Your task to perform on an android device: Show me productivity apps on the Play Store Image 0: 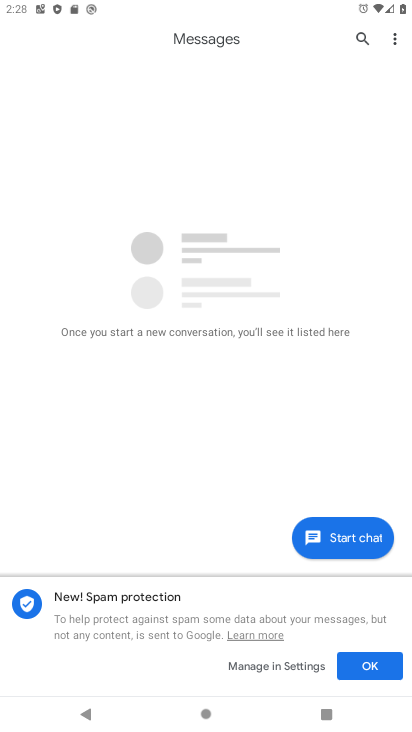
Step 0: press home button
Your task to perform on an android device: Show me productivity apps on the Play Store Image 1: 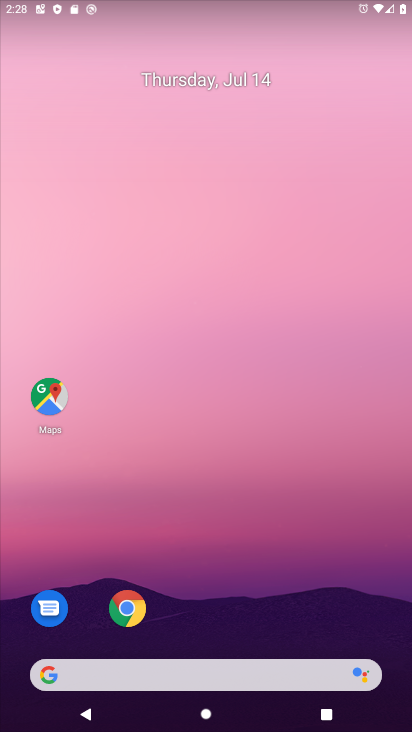
Step 1: drag from (227, 717) to (222, 37)
Your task to perform on an android device: Show me productivity apps on the Play Store Image 2: 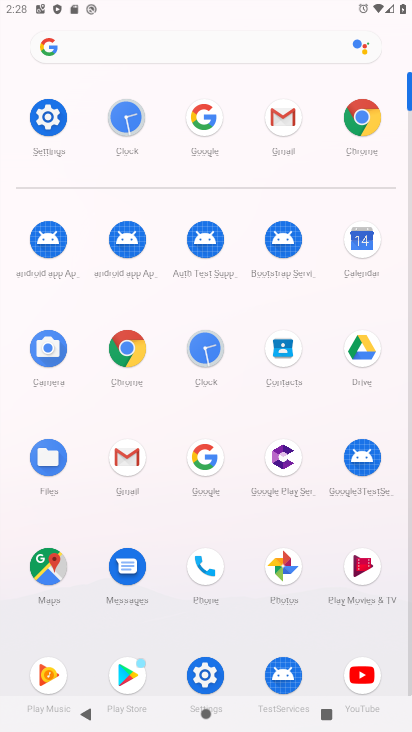
Step 2: click (123, 671)
Your task to perform on an android device: Show me productivity apps on the Play Store Image 3: 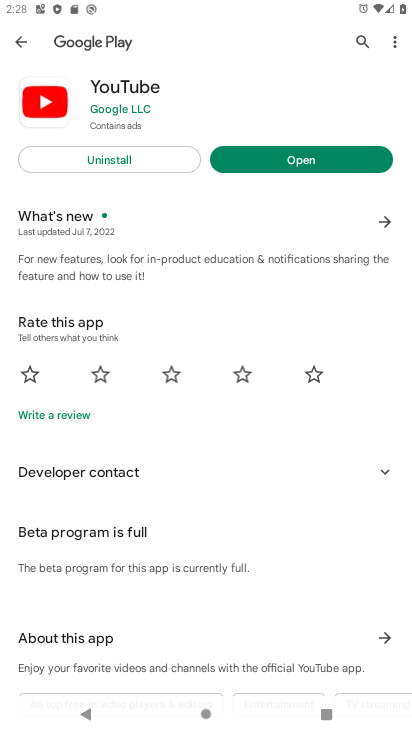
Step 3: click (17, 38)
Your task to perform on an android device: Show me productivity apps on the Play Store Image 4: 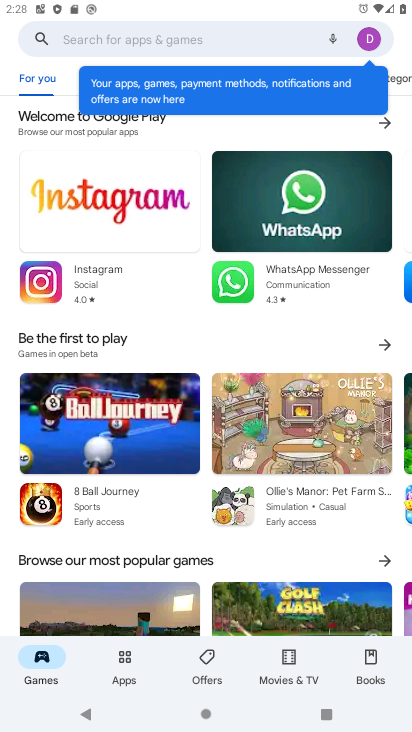
Step 4: click (119, 666)
Your task to perform on an android device: Show me productivity apps on the Play Store Image 5: 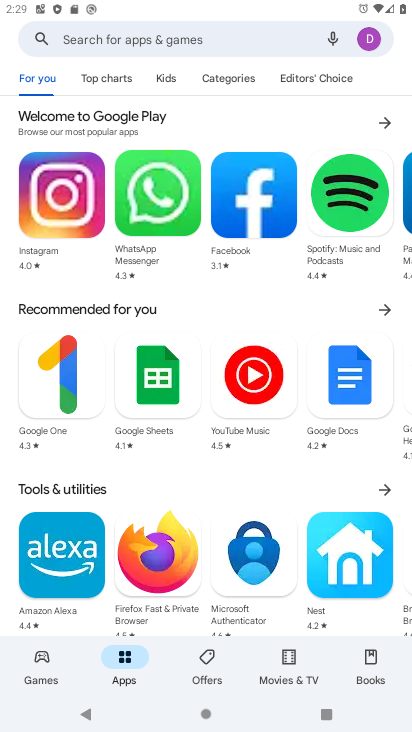
Step 5: click (234, 76)
Your task to perform on an android device: Show me productivity apps on the Play Store Image 6: 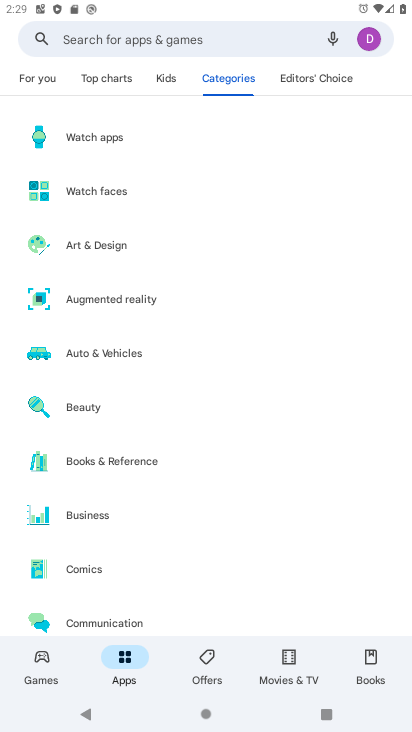
Step 6: drag from (160, 573) to (156, 193)
Your task to perform on an android device: Show me productivity apps on the Play Store Image 7: 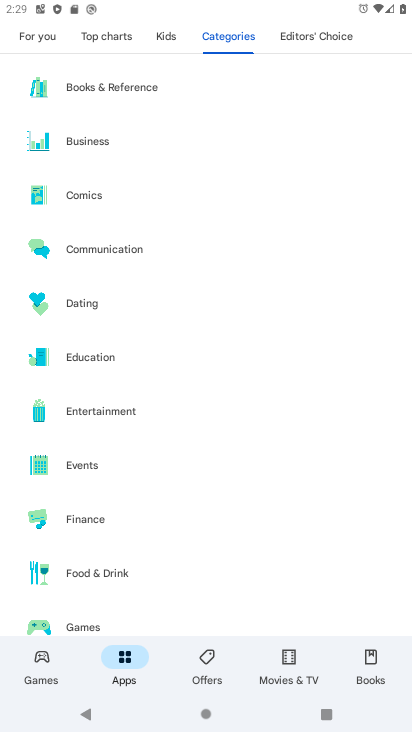
Step 7: drag from (164, 623) to (178, 199)
Your task to perform on an android device: Show me productivity apps on the Play Store Image 8: 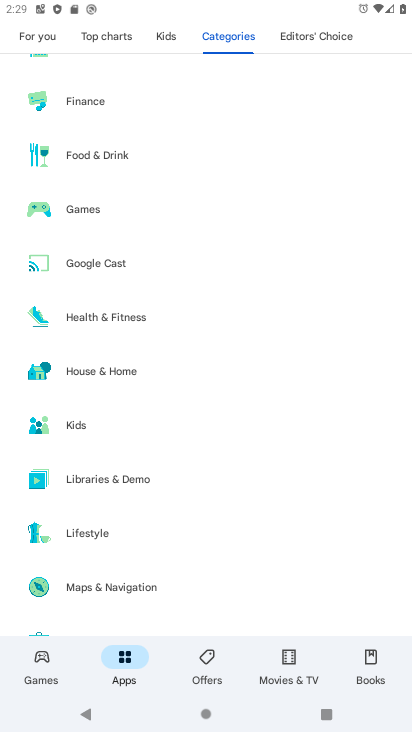
Step 8: drag from (190, 580) to (190, 155)
Your task to perform on an android device: Show me productivity apps on the Play Store Image 9: 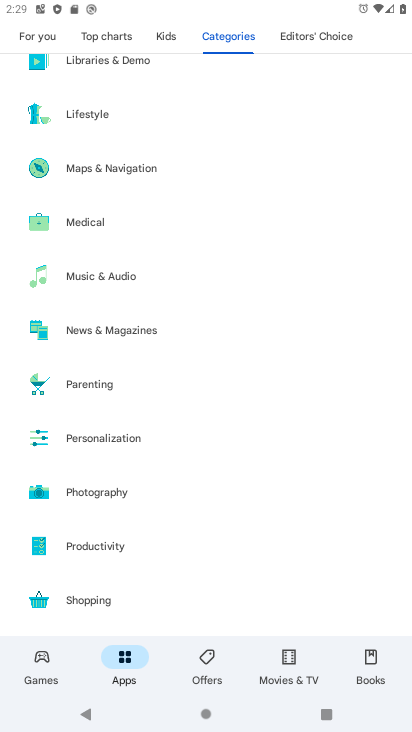
Step 9: click (89, 544)
Your task to perform on an android device: Show me productivity apps on the Play Store Image 10: 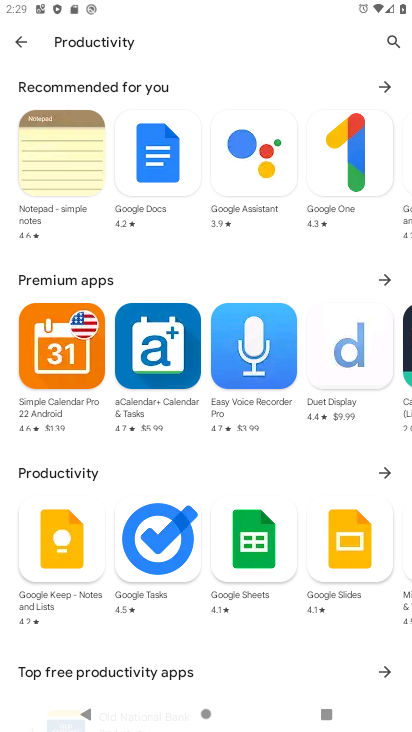
Step 10: task complete